Your task to perform on an android device: Open Youtube and go to the subscriptions tab Image 0: 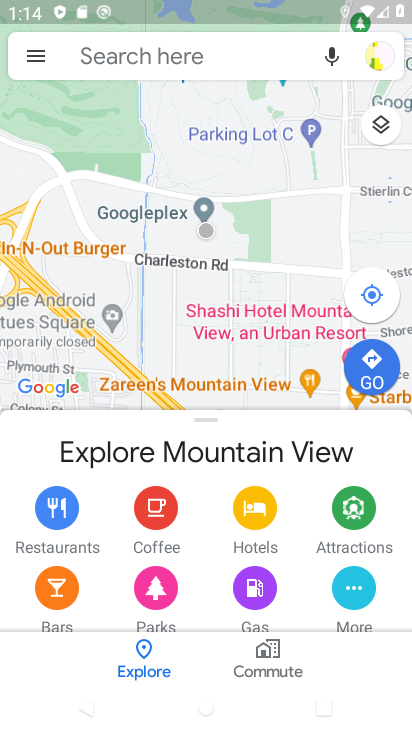
Step 0: press home button
Your task to perform on an android device: Open Youtube and go to the subscriptions tab Image 1: 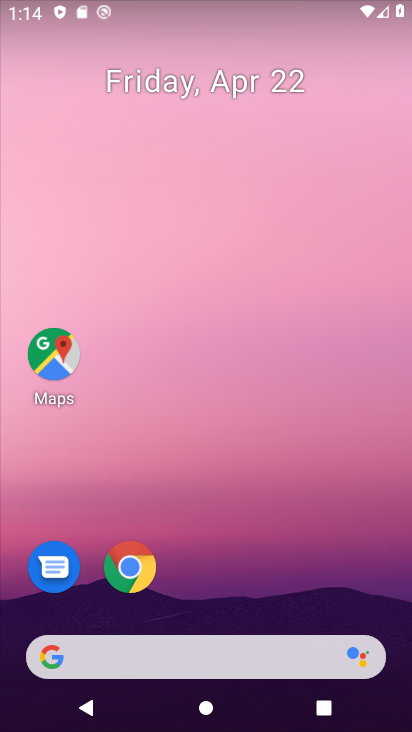
Step 1: drag from (222, 591) to (222, 133)
Your task to perform on an android device: Open Youtube and go to the subscriptions tab Image 2: 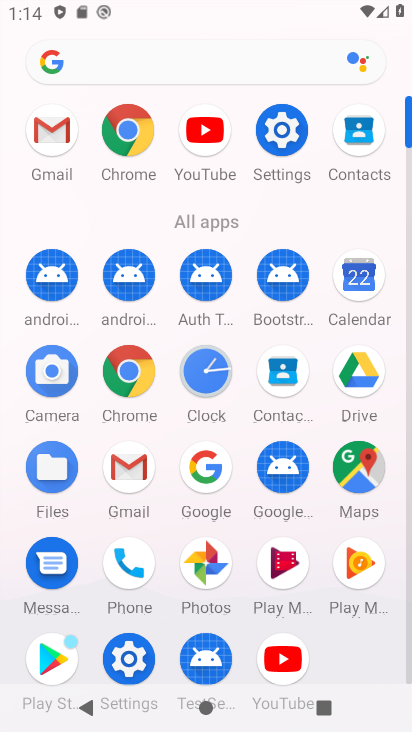
Step 2: click (276, 655)
Your task to perform on an android device: Open Youtube and go to the subscriptions tab Image 3: 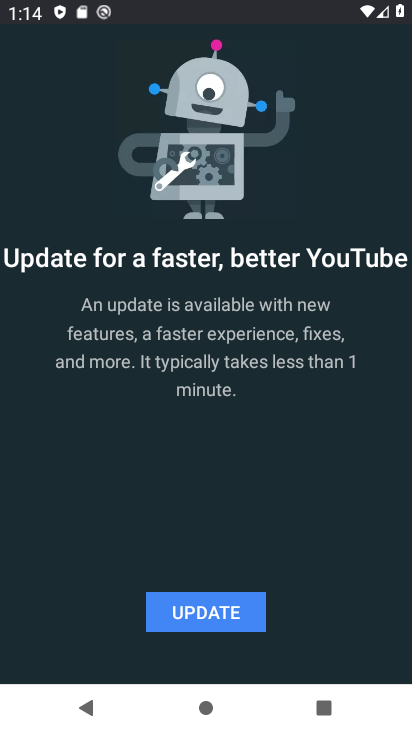
Step 3: click (228, 607)
Your task to perform on an android device: Open Youtube and go to the subscriptions tab Image 4: 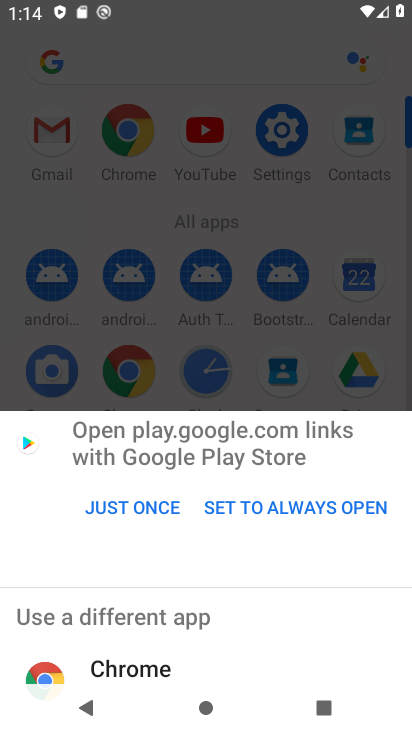
Step 4: click (142, 512)
Your task to perform on an android device: Open Youtube and go to the subscriptions tab Image 5: 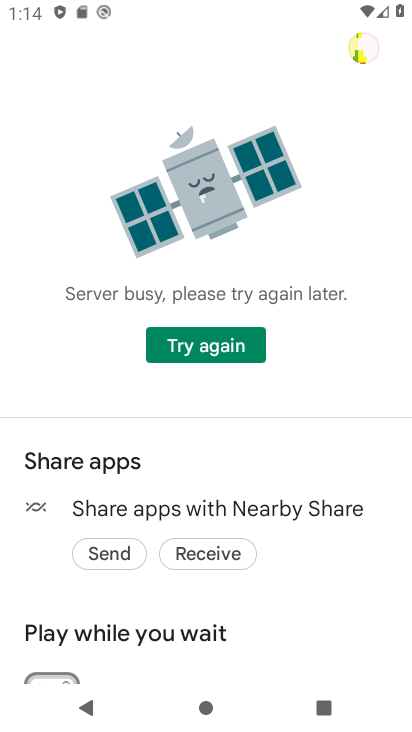
Step 5: click (196, 333)
Your task to perform on an android device: Open Youtube and go to the subscriptions tab Image 6: 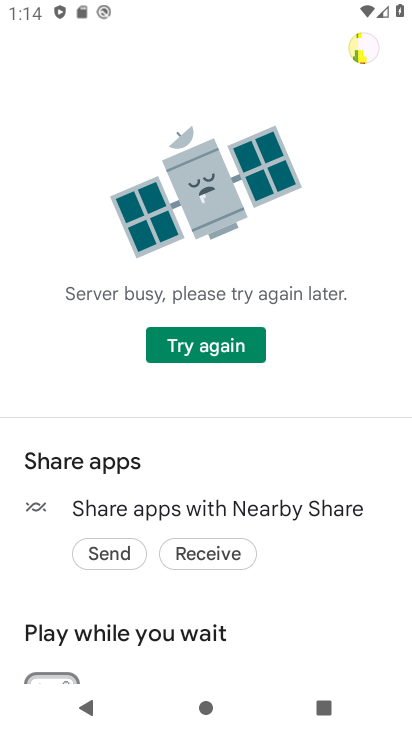
Step 6: click (191, 344)
Your task to perform on an android device: Open Youtube and go to the subscriptions tab Image 7: 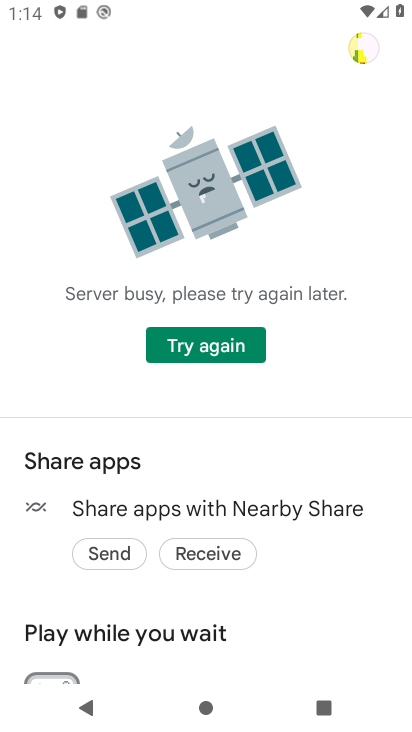
Step 7: click (191, 344)
Your task to perform on an android device: Open Youtube and go to the subscriptions tab Image 8: 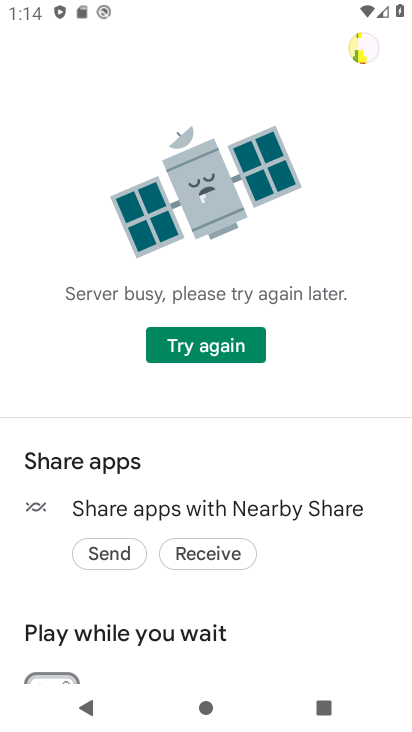
Step 8: click (191, 344)
Your task to perform on an android device: Open Youtube and go to the subscriptions tab Image 9: 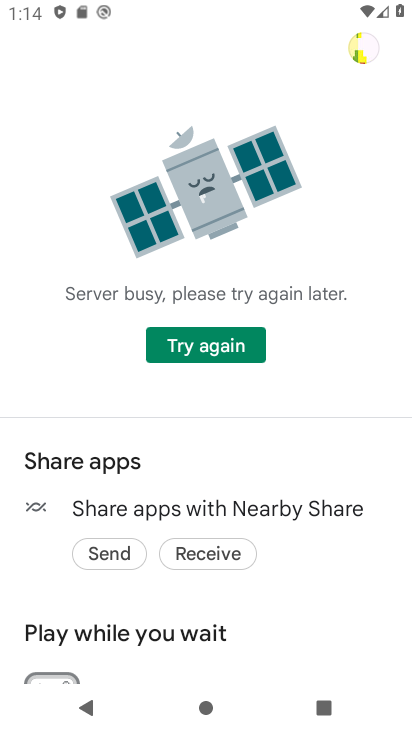
Step 9: click (191, 344)
Your task to perform on an android device: Open Youtube and go to the subscriptions tab Image 10: 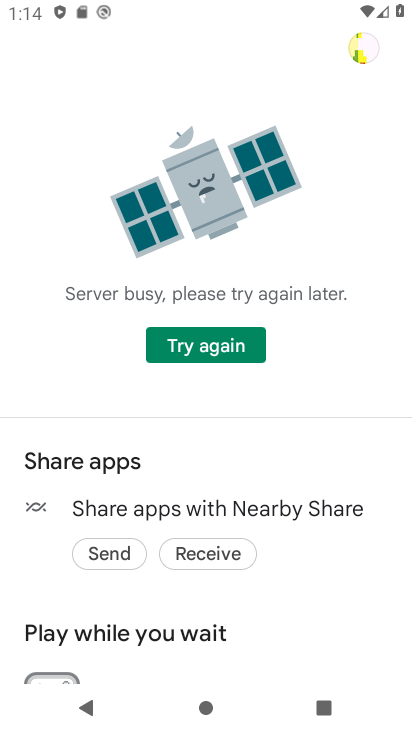
Step 10: click (191, 344)
Your task to perform on an android device: Open Youtube and go to the subscriptions tab Image 11: 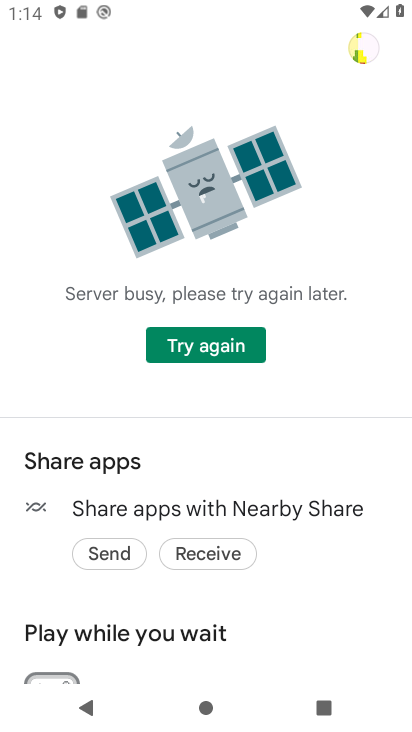
Step 11: click (191, 344)
Your task to perform on an android device: Open Youtube and go to the subscriptions tab Image 12: 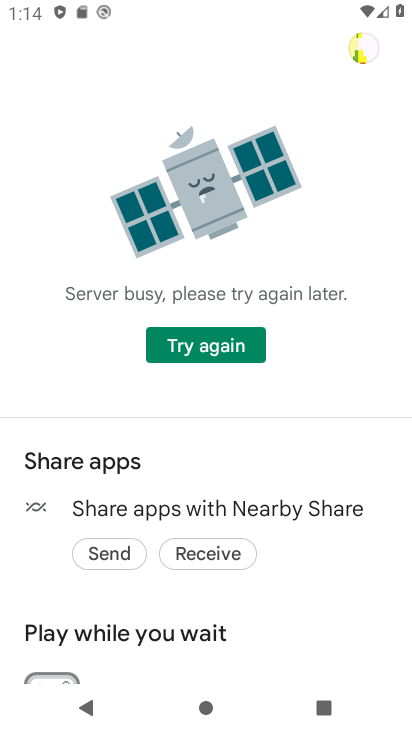
Step 12: click (191, 344)
Your task to perform on an android device: Open Youtube and go to the subscriptions tab Image 13: 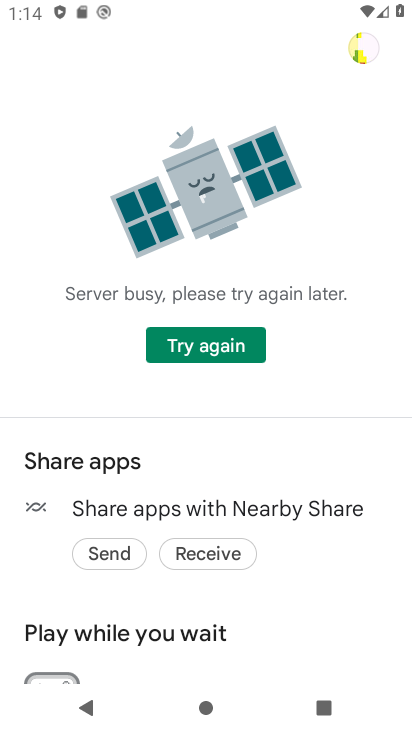
Step 13: task complete